Your task to perform on an android device: Open settings Image 0: 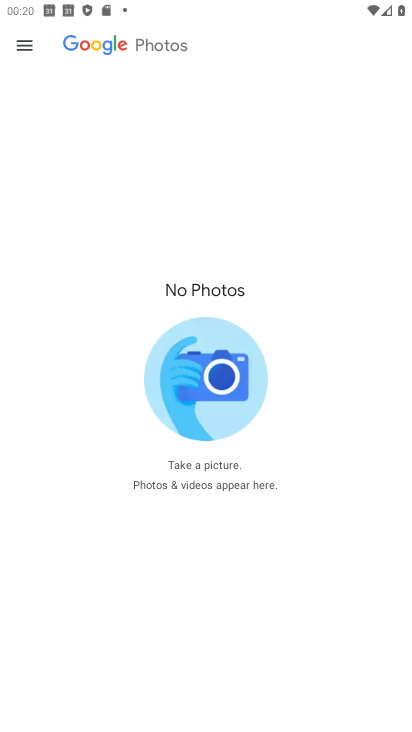
Step 0: press home button
Your task to perform on an android device: Open settings Image 1: 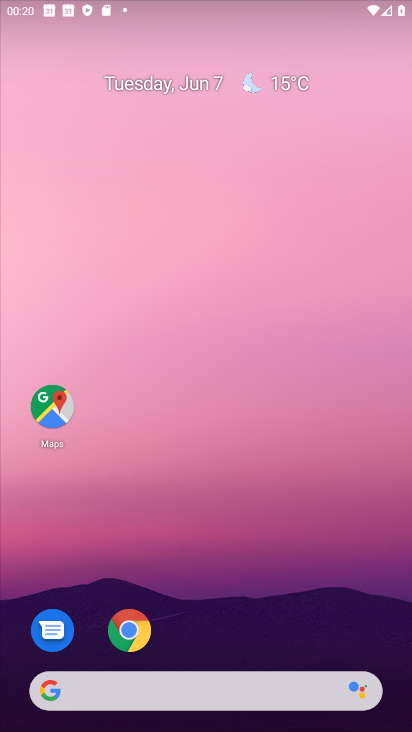
Step 1: drag from (355, 588) to (349, 257)
Your task to perform on an android device: Open settings Image 2: 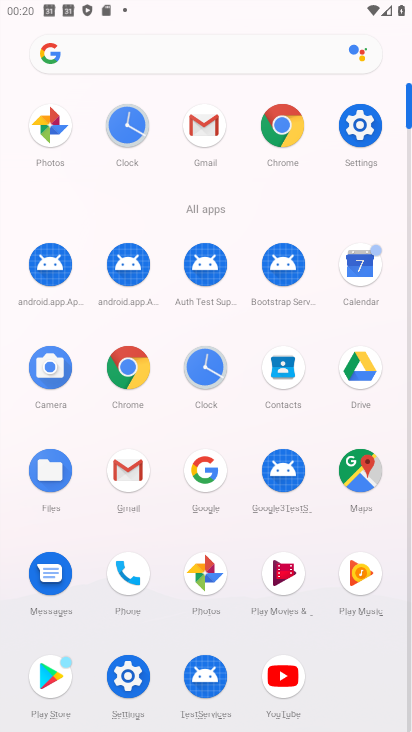
Step 2: click (348, 131)
Your task to perform on an android device: Open settings Image 3: 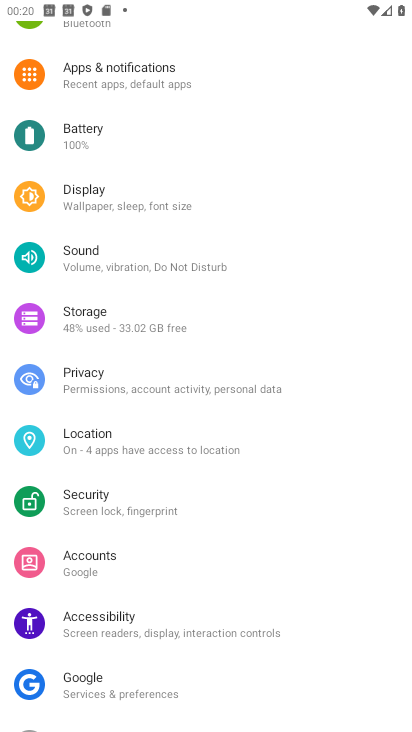
Step 3: task complete